Your task to perform on an android device: Go to settings Image 0: 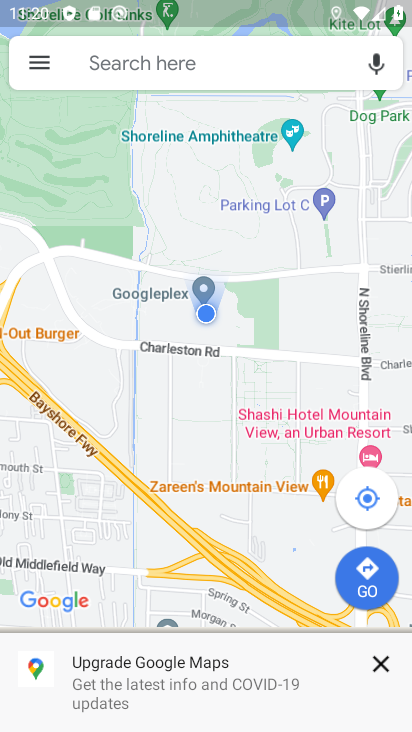
Step 0: press back button
Your task to perform on an android device: Go to settings Image 1: 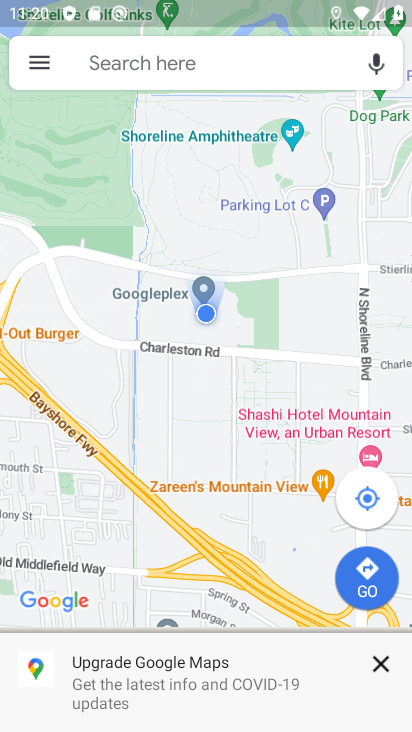
Step 1: press home button
Your task to perform on an android device: Go to settings Image 2: 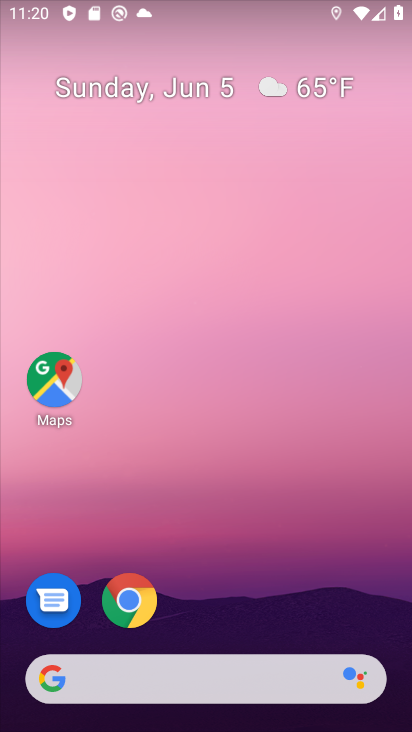
Step 2: drag from (213, 714) to (91, 199)
Your task to perform on an android device: Go to settings Image 3: 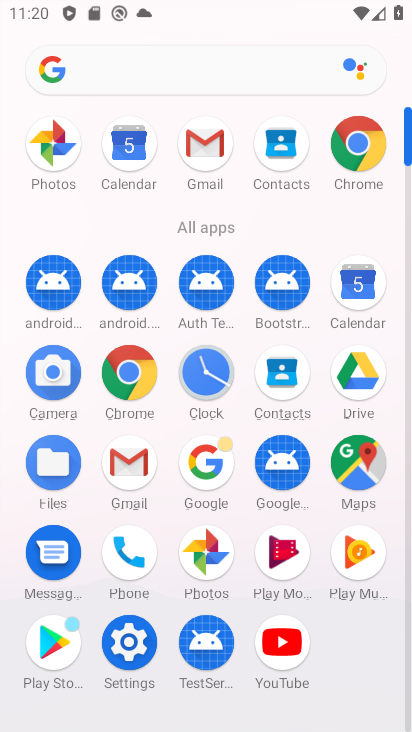
Step 3: click (132, 654)
Your task to perform on an android device: Go to settings Image 4: 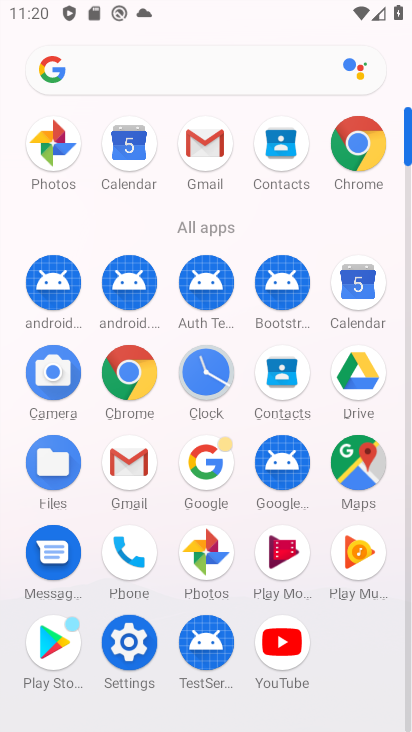
Step 4: click (130, 651)
Your task to perform on an android device: Go to settings Image 5: 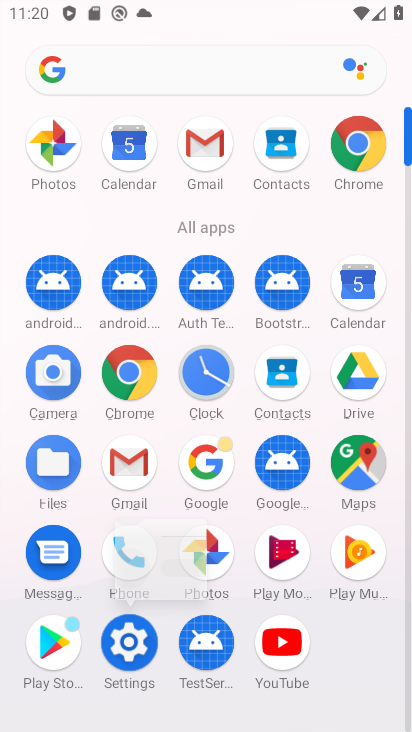
Step 5: click (129, 649)
Your task to perform on an android device: Go to settings Image 6: 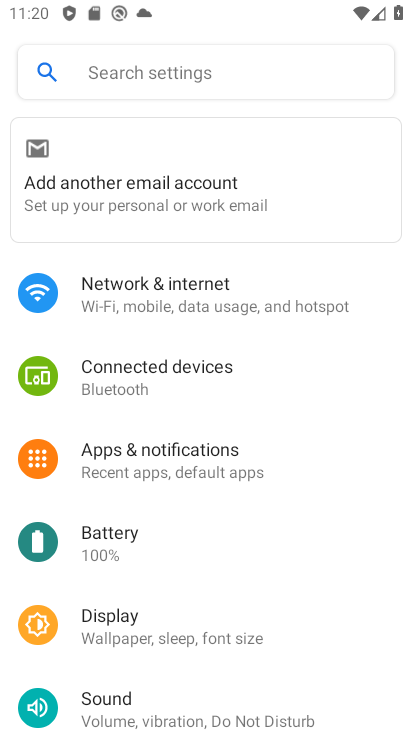
Step 6: task complete